Your task to perform on an android device: change the clock display to digital Image 0: 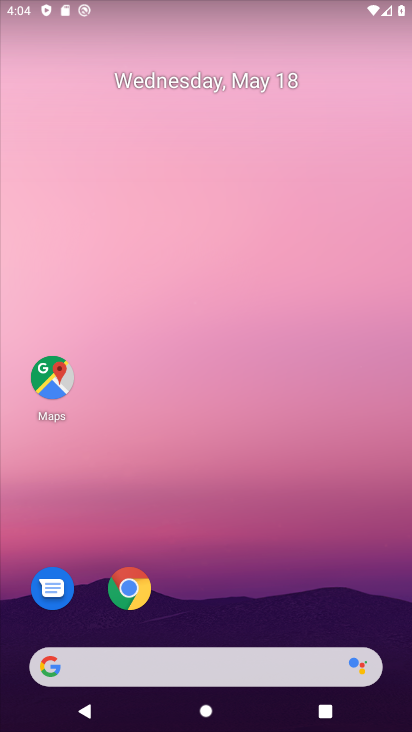
Step 0: drag from (212, 467) to (259, 125)
Your task to perform on an android device: change the clock display to digital Image 1: 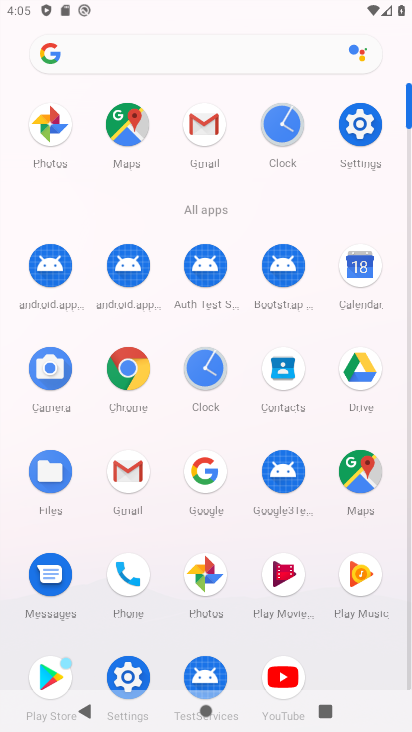
Step 1: click (207, 363)
Your task to perform on an android device: change the clock display to digital Image 2: 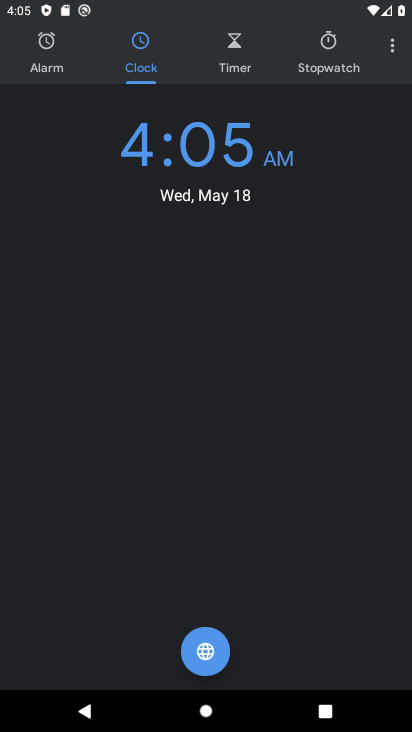
Step 2: click (64, 71)
Your task to perform on an android device: change the clock display to digital Image 3: 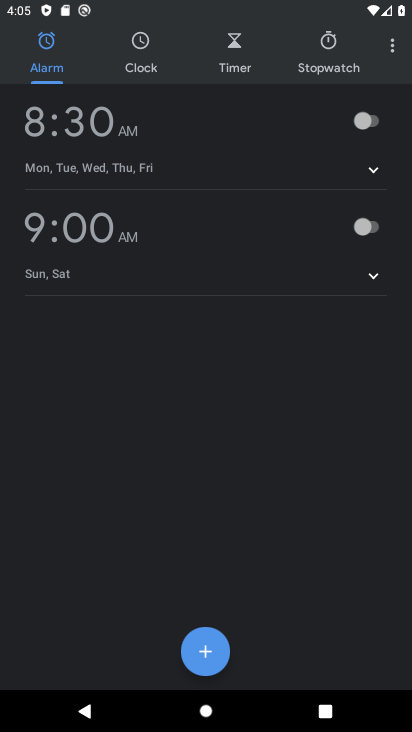
Step 3: drag from (396, 39) to (297, 83)
Your task to perform on an android device: change the clock display to digital Image 4: 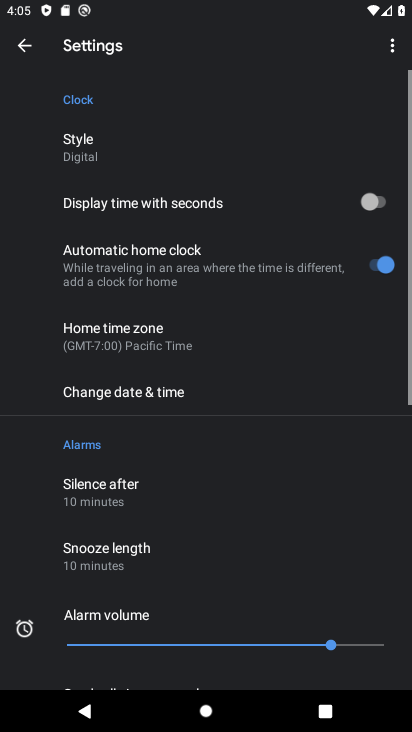
Step 4: click (79, 136)
Your task to perform on an android device: change the clock display to digital Image 5: 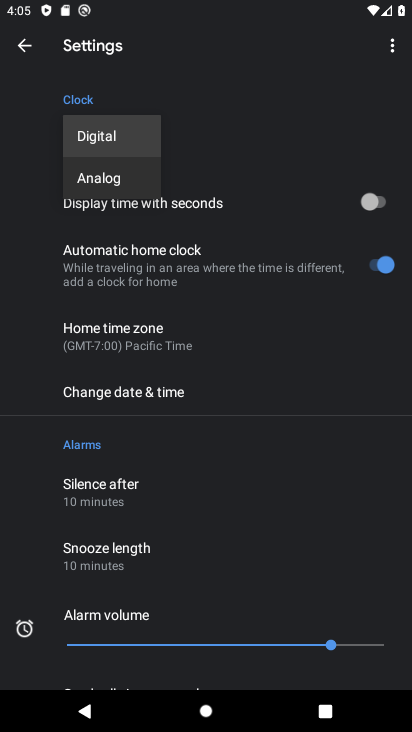
Step 5: task complete